Your task to perform on an android device: Go to accessibility settings Image 0: 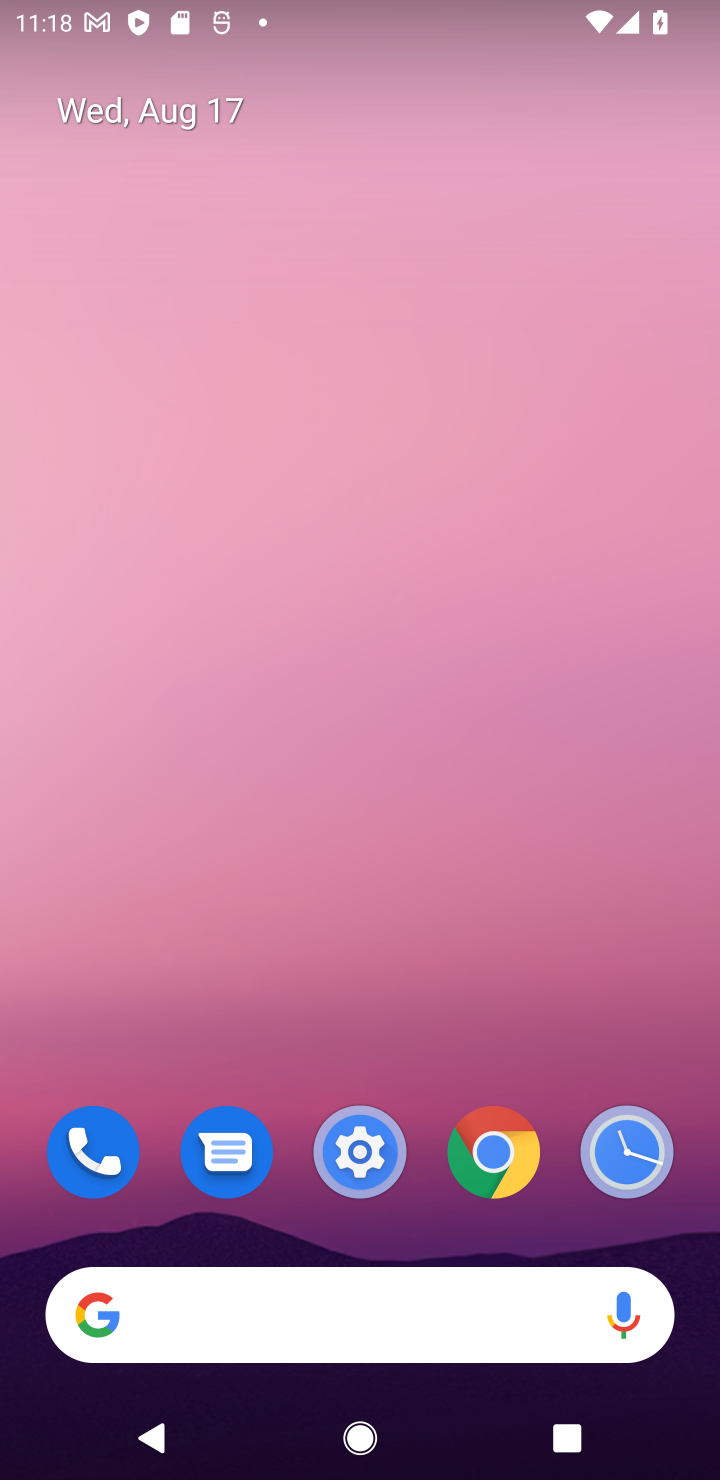
Step 0: drag from (557, 1225) to (180, 117)
Your task to perform on an android device: Go to accessibility settings Image 1: 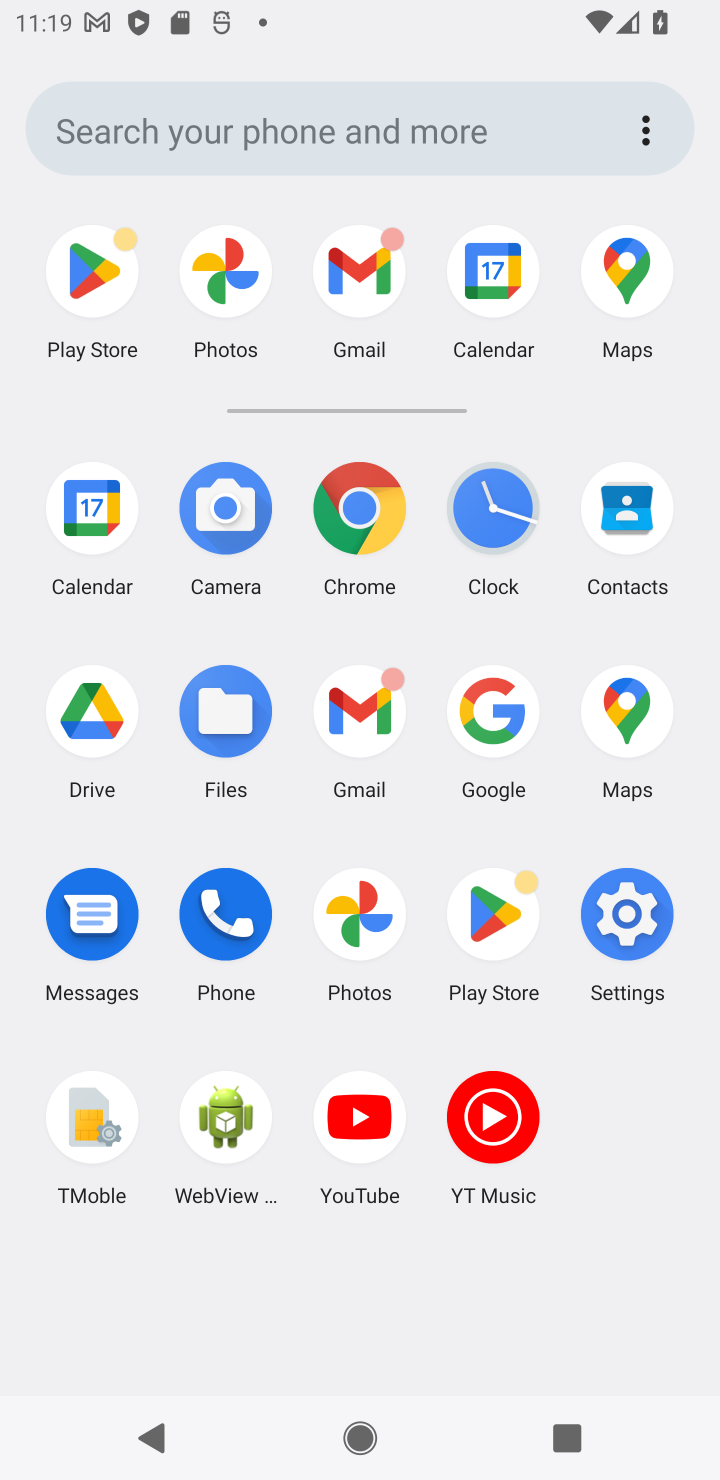
Step 1: click (602, 920)
Your task to perform on an android device: Go to accessibility settings Image 2: 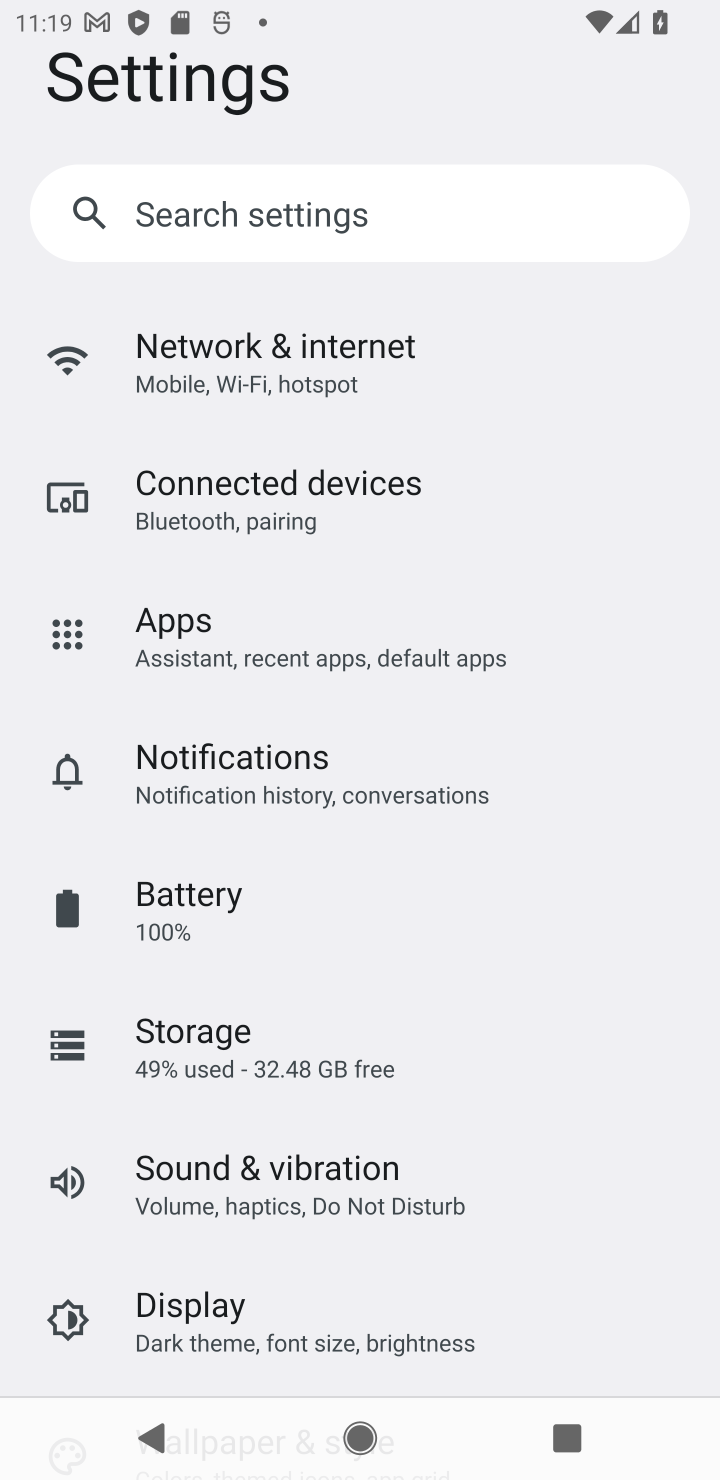
Step 2: drag from (378, 1250) to (261, 394)
Your task to perform on an android device: Go to accessibility settings Image 3: 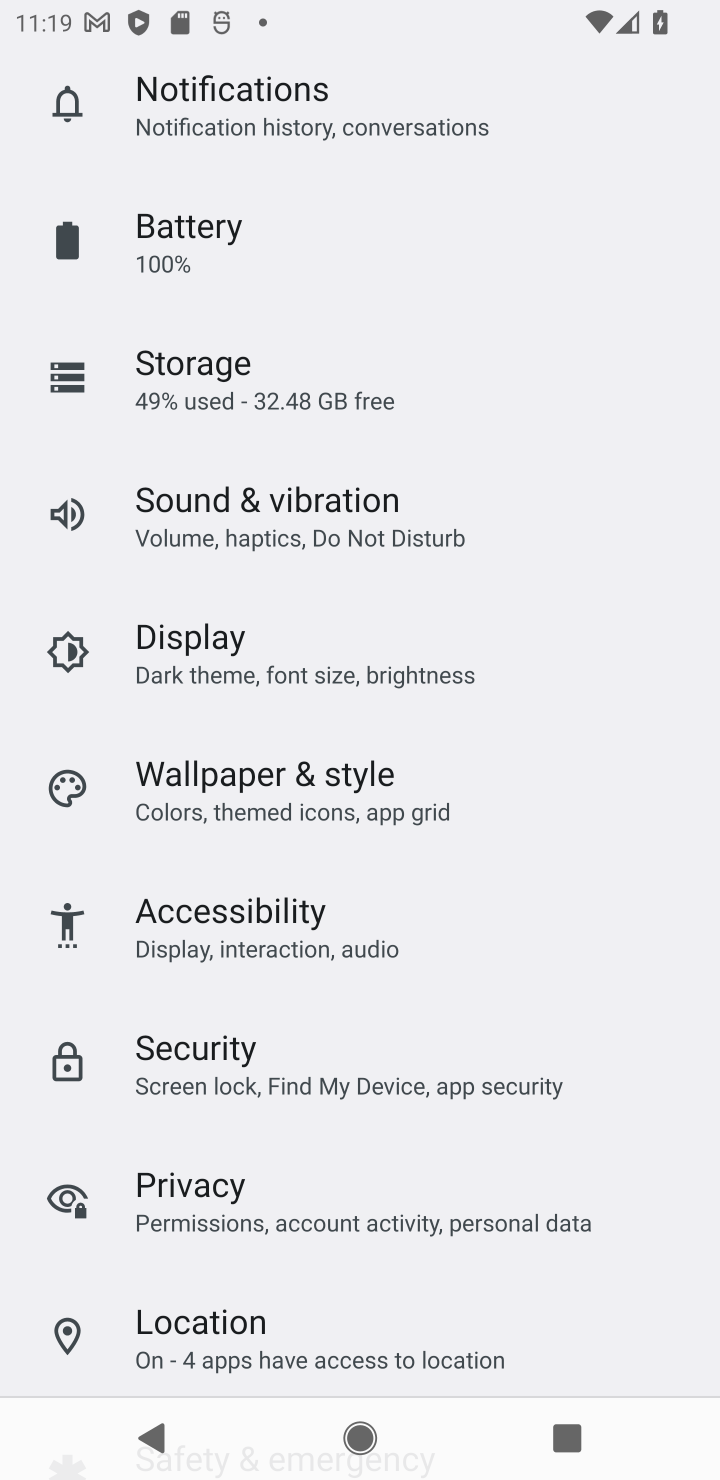
Step 3: click (213, 926)
Your task to perform on an android device: Go to accessibility settings Image 4: 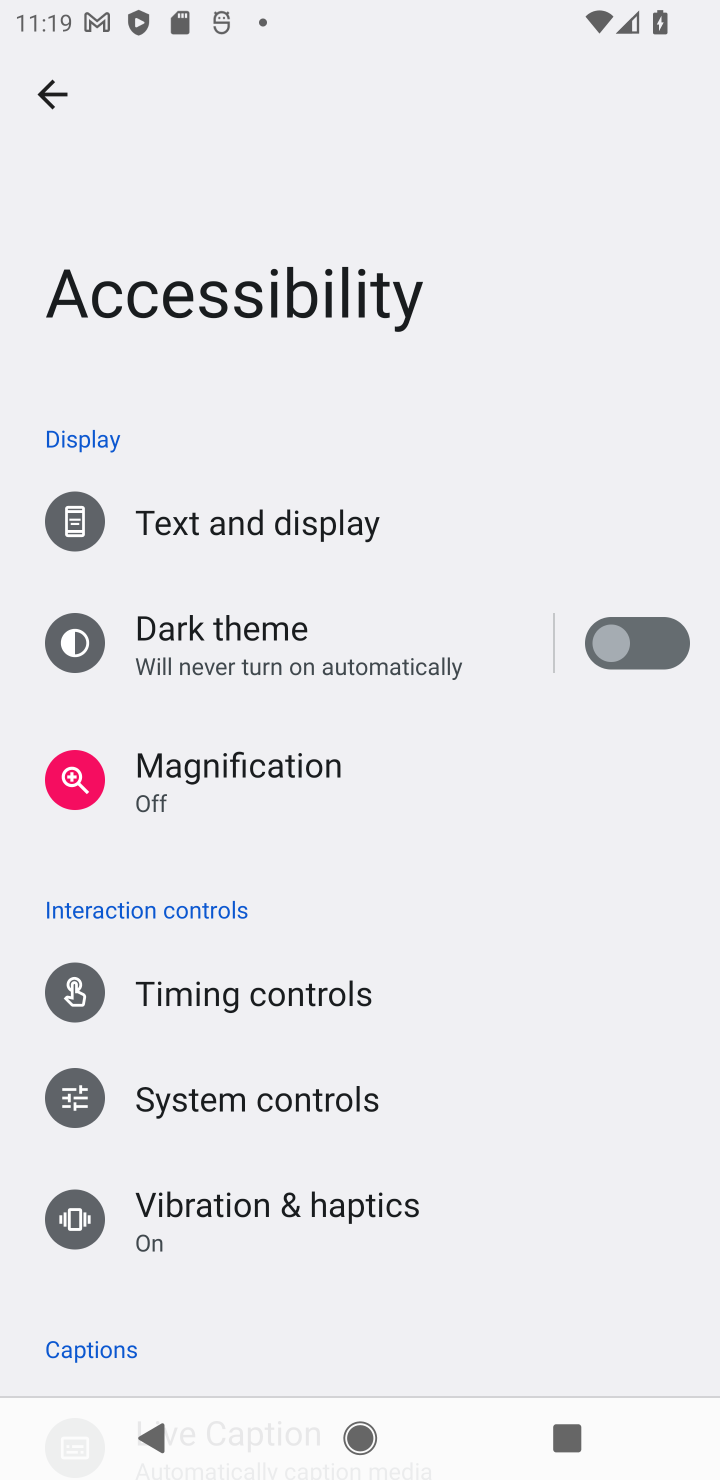
Step 4: task complete